Your task to perform on an android device: toggle javascript in the chrome app Image 0: 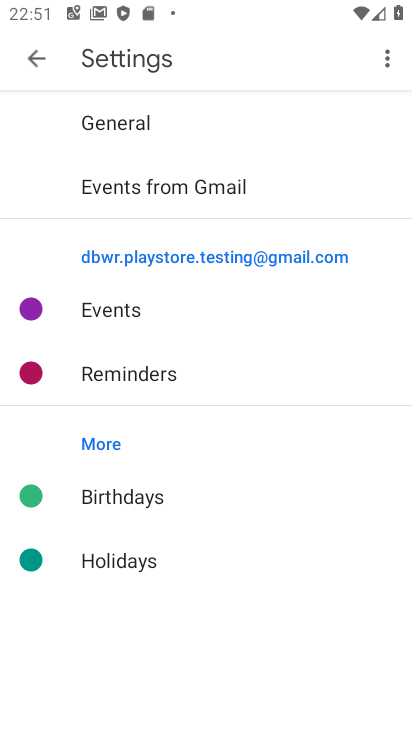
Step 0: press home button
Your task to perform on an android device: toggle javascript in the chrome app Image 1: 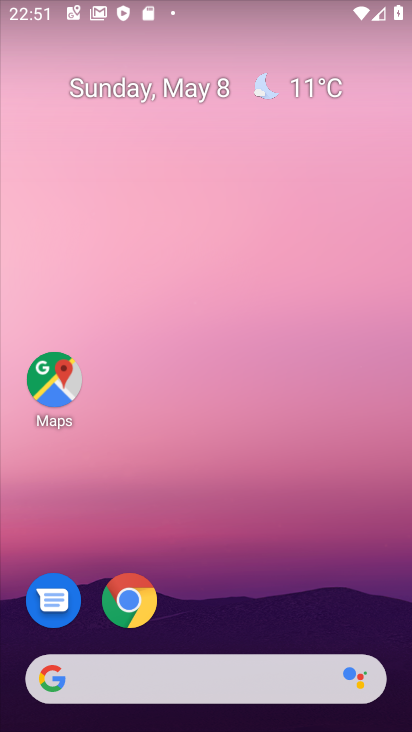
Step 1: click (122, 607)
Your task to perform on an android device: toggle javascript in the chrome app Image 2: 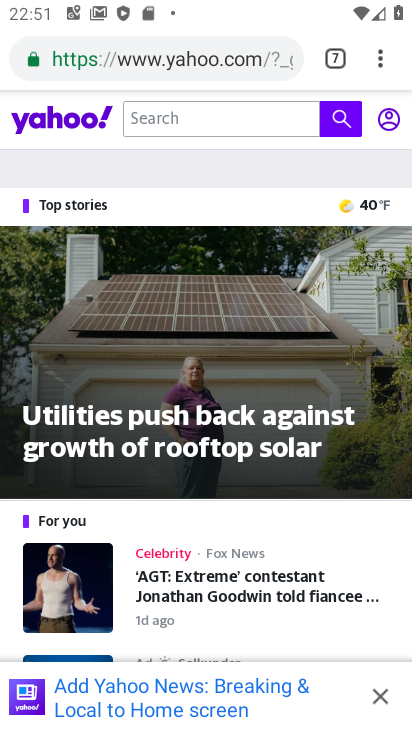
Step 2: click (392, 60)
Your task to perform on an android device: toggle javascript in the chrome app Image 3: 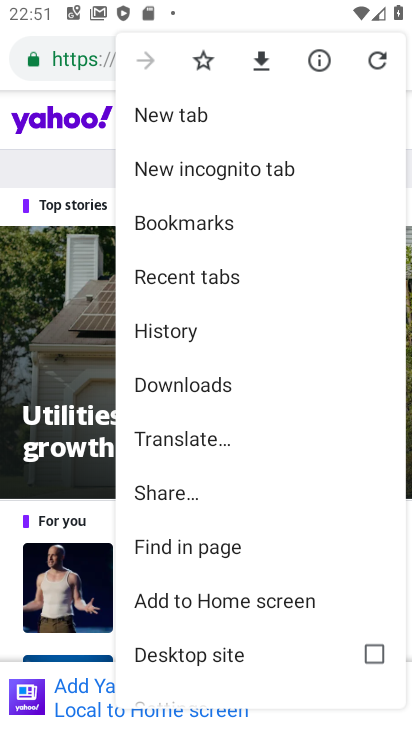
Step 3: drag from (238, 562) to (271, 164)
Your task to perform on an android device: toggle javascript in the chrome app Image 4: 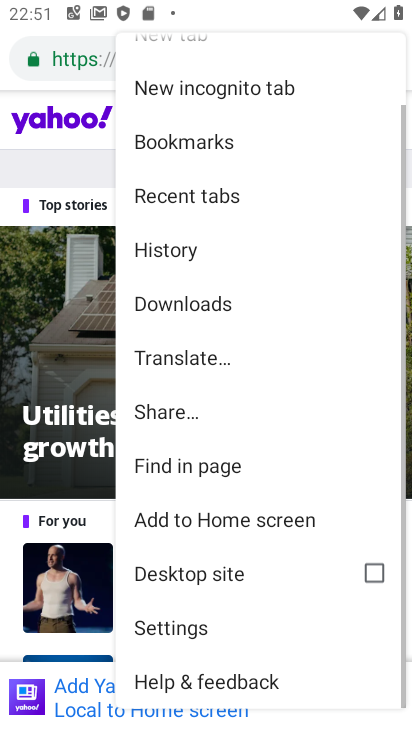
Step 4: click (221, 637)
Your task to perform on an android device: toggle javascript in the chrome app Image 5: 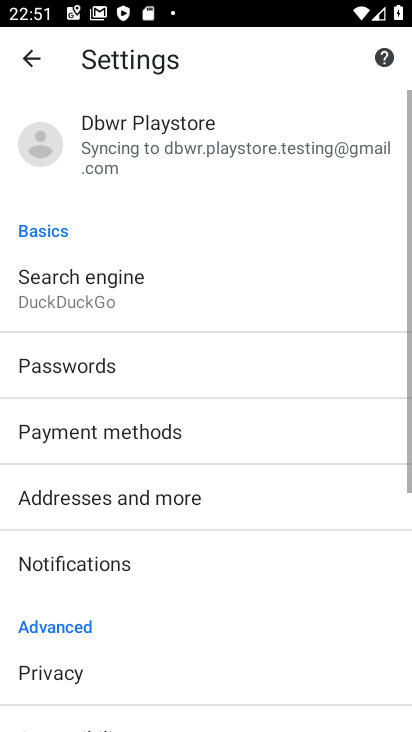
Step 5: drag from (195, 624) to (247, 246)
Your task to perform on an android device: toggle javascript in the chrome app Image 6: 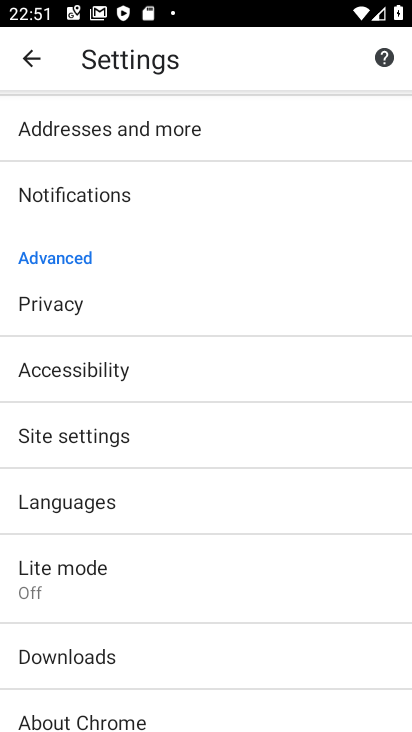
Step 6: drag from (118, 559) to (162, 300)
Your task to perform on an android device: toggle javascript in the chrome app Image 7: 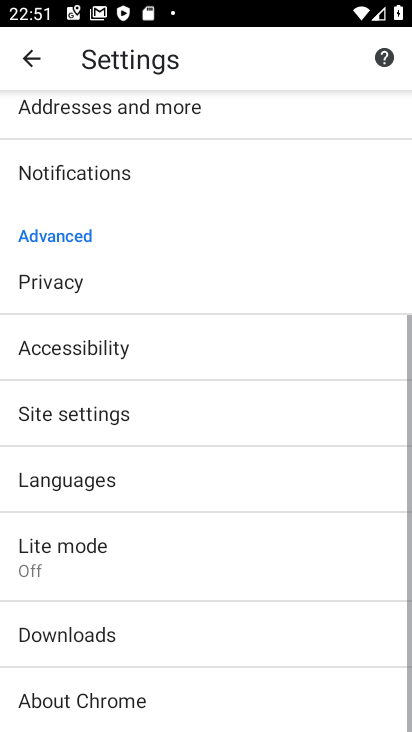
Step 7: drag from (85, 596) to (177, 159)
Your task to perform on an android device: toggle javascript in the chrome app Image 8: 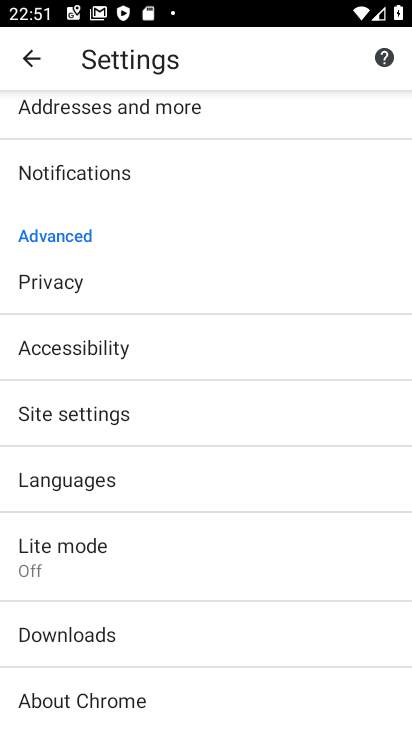
Step 8: click (184, 442)
Your task to perform on an android device: toggle javascript in the chrome app Image 9: 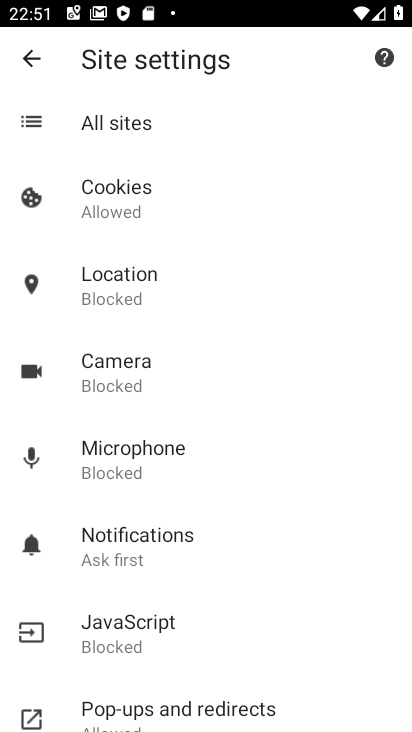
Step 9: click (205, 646)
Your task to perform on an android device: toggle javascript in the chrome app Image 10: 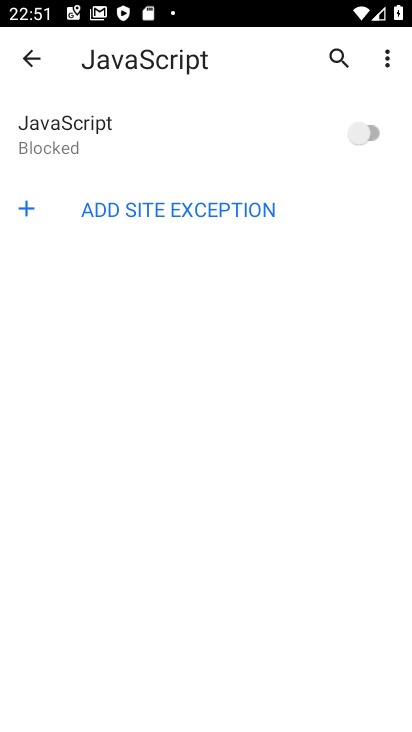
Step 10: click (376, 129)
Your task to perform on an android device: toggle javascript in the chrome app Image 11: 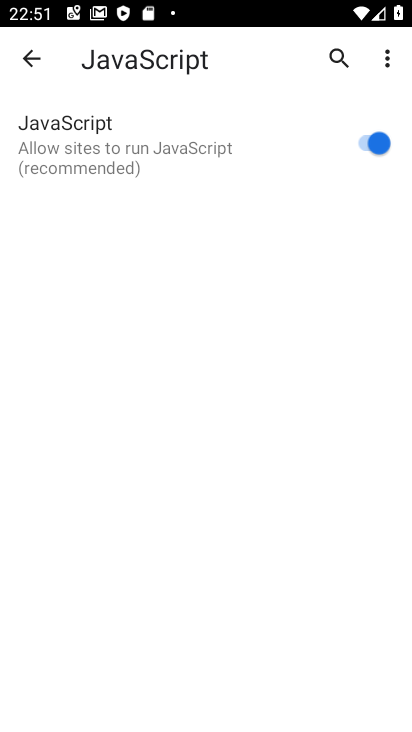
Step 11: click (376, 129)
Your task to perform on an android device: toggle javascript in the chrome app Image 12: 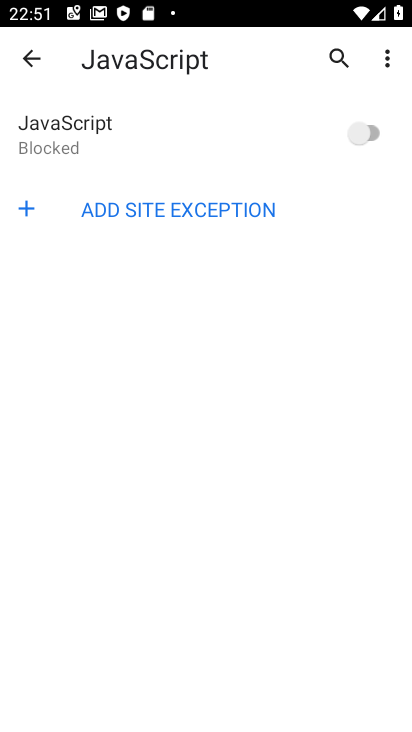
Step 12: task complete